Your task to perform on an android device: open app "Firefox Browser" (install if not already installed) Image 0: 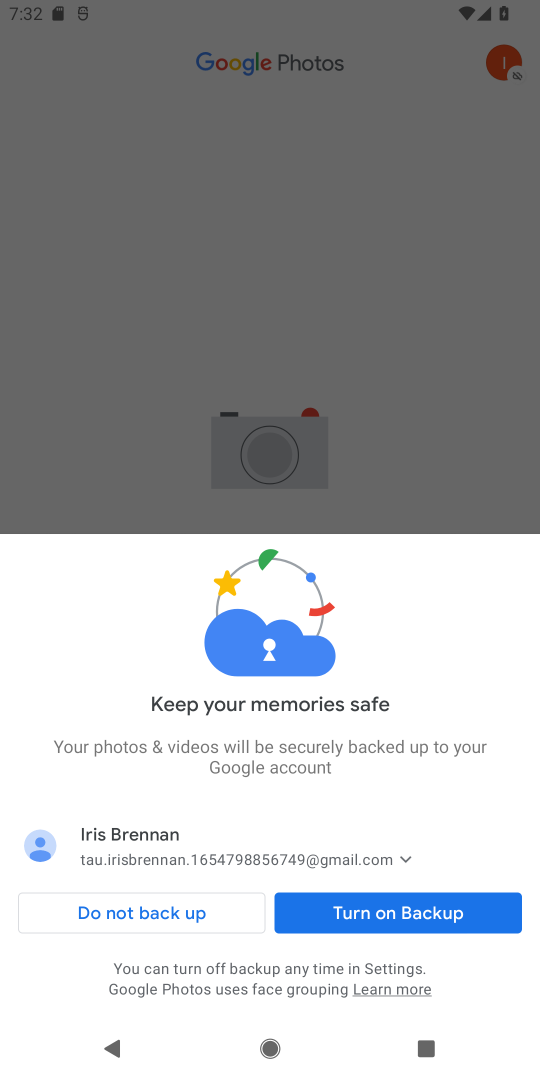
Step 0: press home button
Your task to perform on an android device: open app "Firefox Browser" (install if not already installed) Image 1: 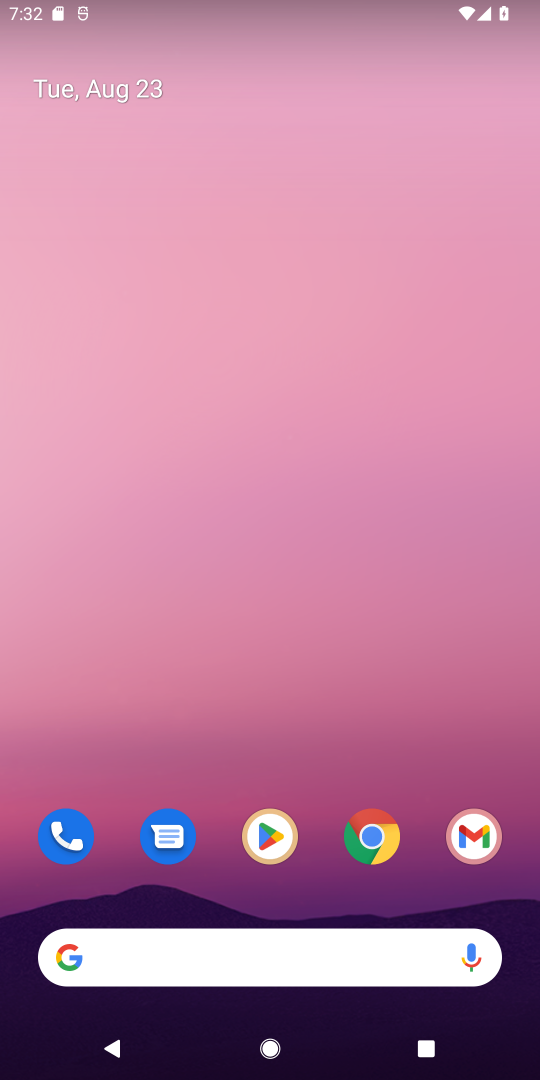
Step 1: click (275, 826)
Your task to perform on an android device: open app "Firefox Browser" (install if not already installed) Image 2: 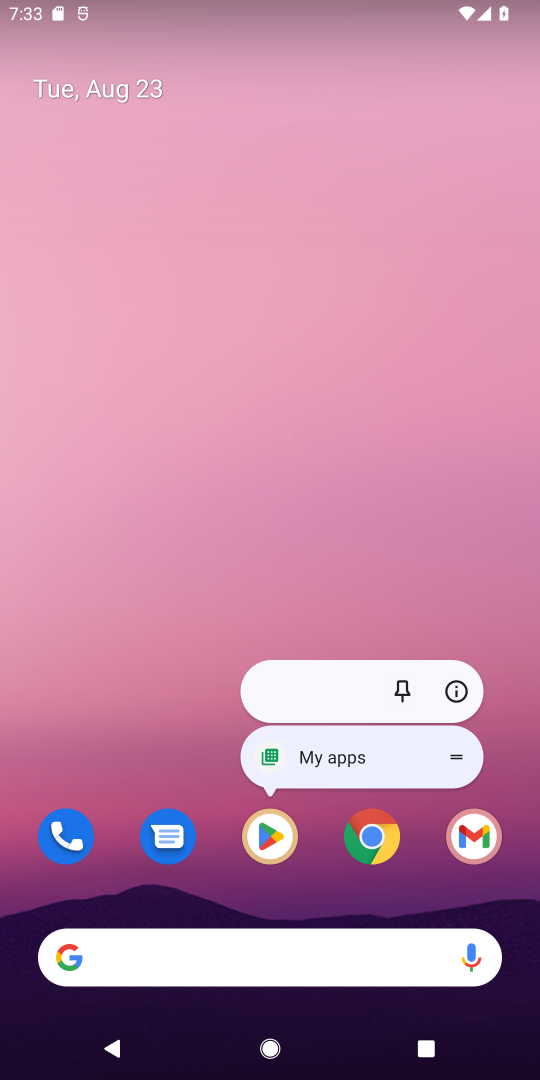
Step 2: click (272, 843)
Your task to perform on an android device: open app "Firefox Browser" (install if not already installed) Image 3: 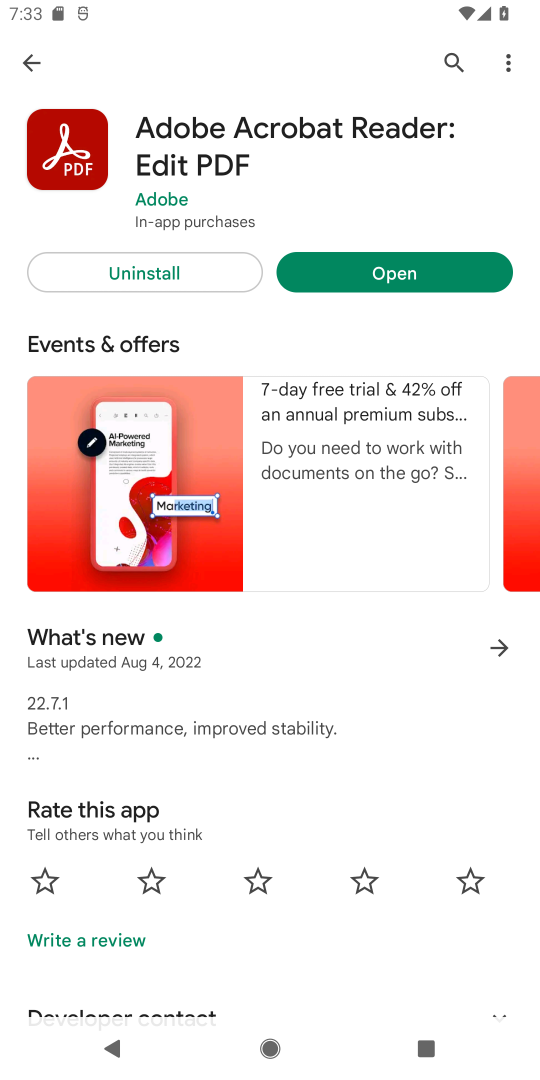
Step 3: click (444, 53)
Your task to perform on an android device: open app "Firefox Browser" (install if not already installed) Image 4: 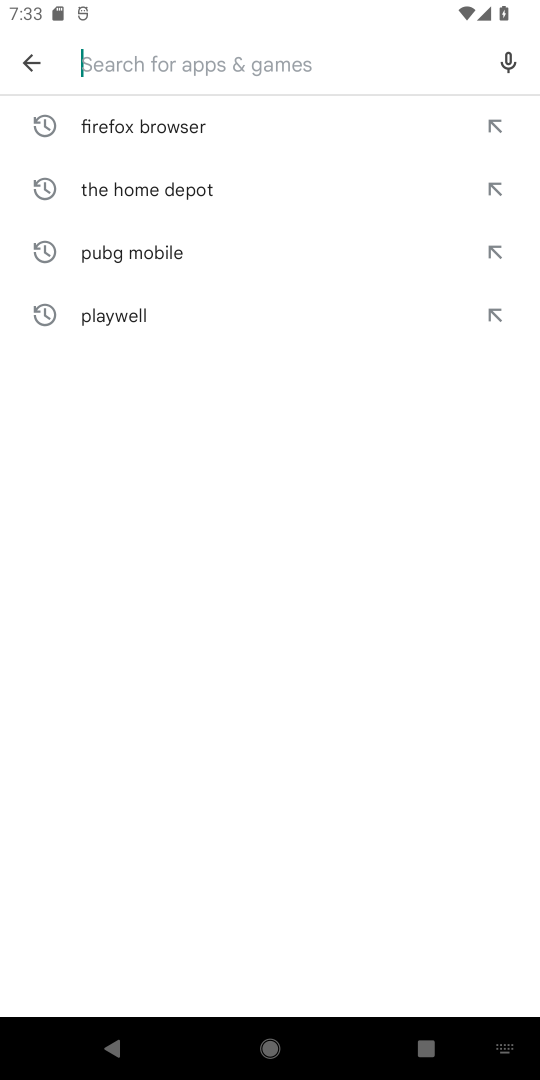
Step 4: type "Firefox Browser"
Your task to perform on an android device: open app "Firefox Browser" (install if not already installed) Image 5: 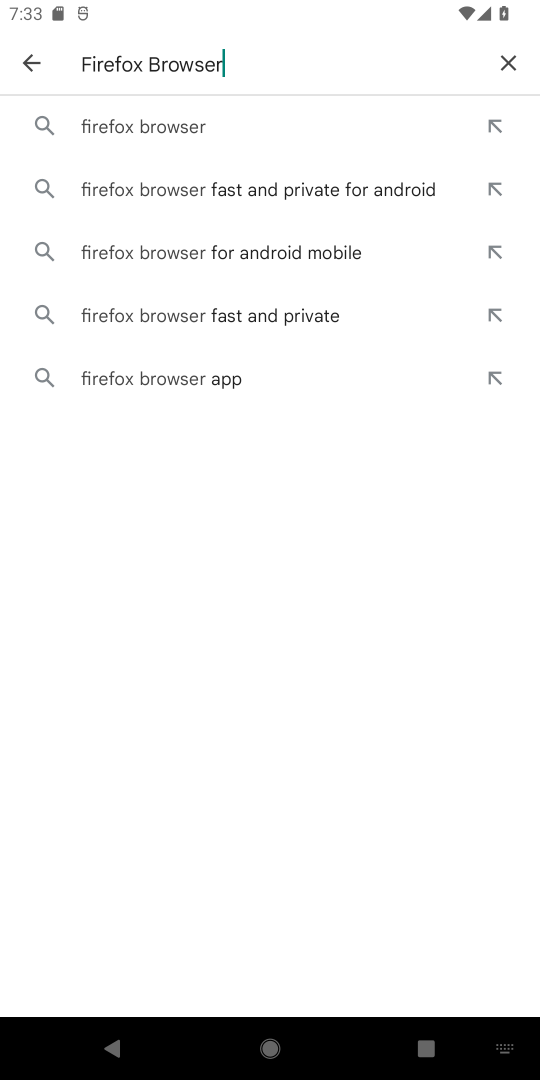
Step 5: click (191, 134)
Your task to perform on an android device: open app "Firefox Browser" (install if not already installed) Image 6: 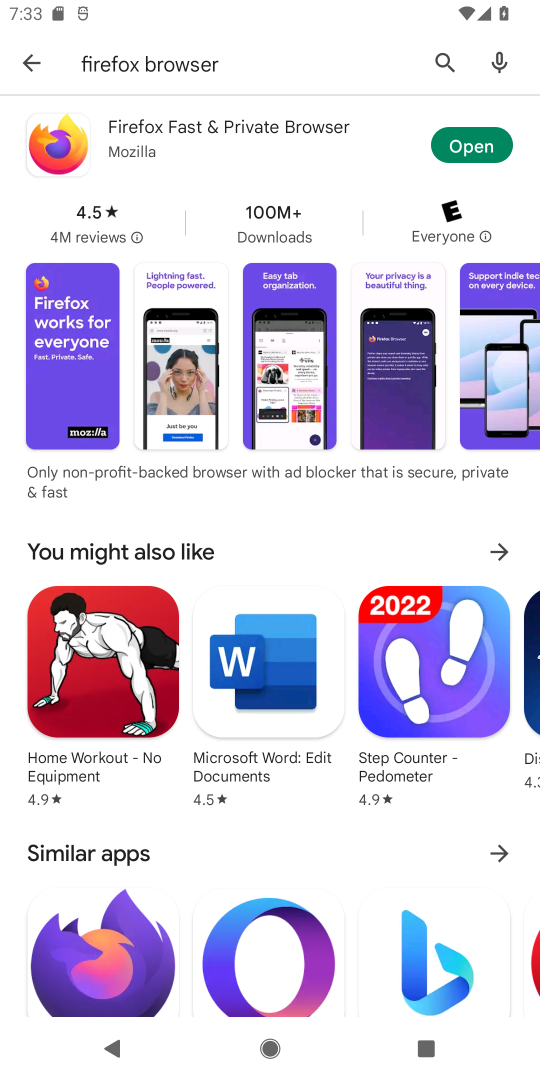
Step 6: click (487, 145)
Your task to perform on an android device: open app "Firefox Browser" (install if not already installed) Image 7: 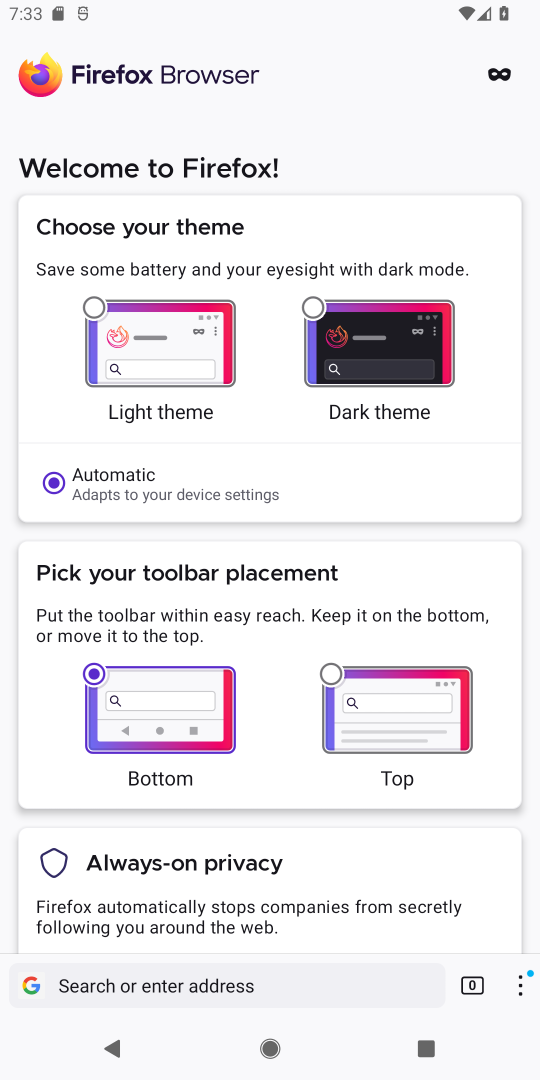
Step 7: task complete